Your task to perform on an android device: Open ESPN.com Image 0: 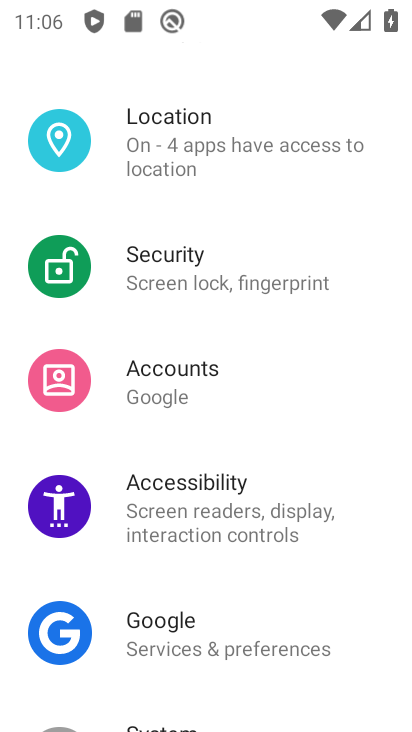
Step 0: press home button
Your task to perform on an android device: Open ESPN.com Image 1: 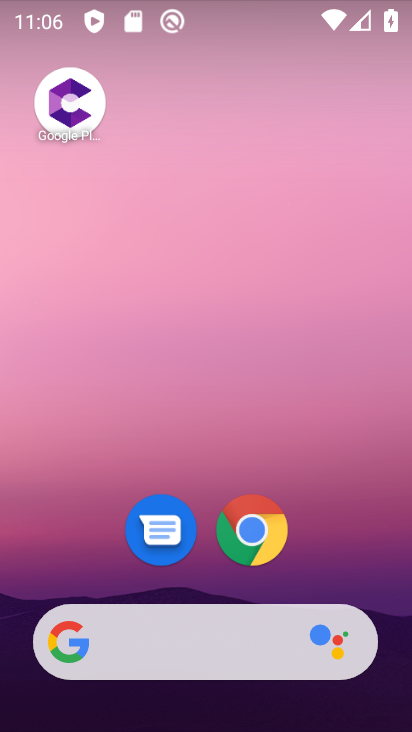
Step 1: click (266, 525)
Your task to perform on an android device: Open ESPN.com Image 2: 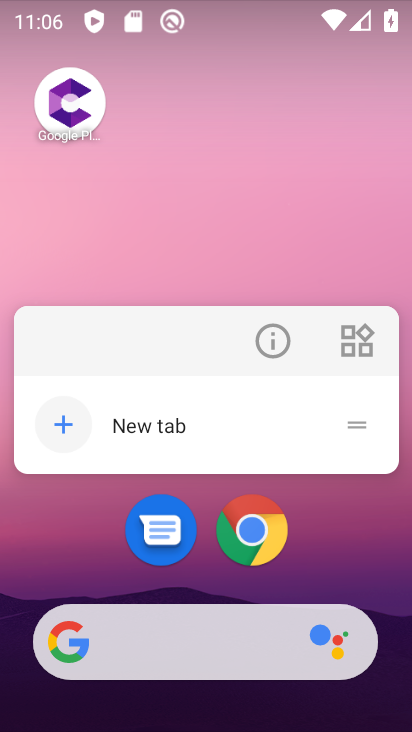
Step 2: click (264, 527)
Your task to perform on an android device: Open ESPN.com Image 3: 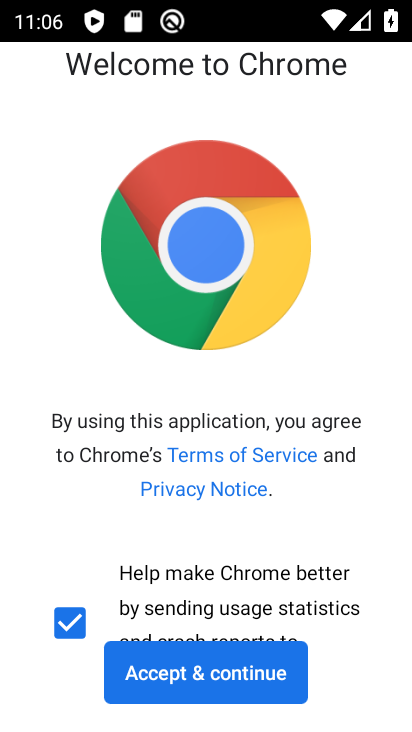
Step 3: click (226, 651)
Your task to perform on an android device: Open ESPN.com Image 4: 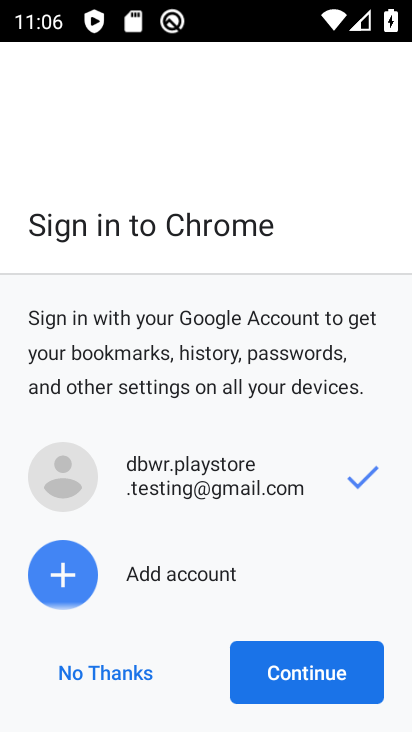
Step 4: click (254, 674)
Your task to perform on an android device: Open ESPN.com Image 5: 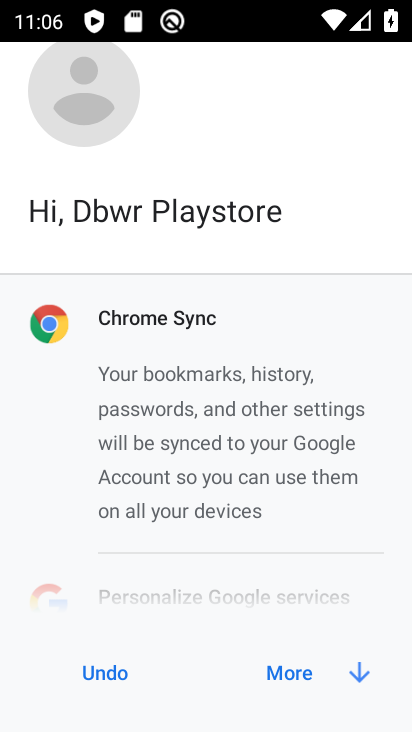
Step 5: click (279, 674)
Your task to perform on an android device: Open ESPN.com Image 6: 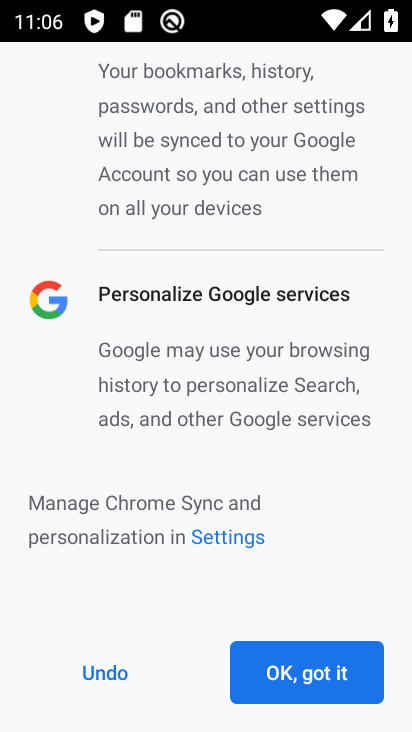
Step 6: click (279, 674)
Your task to perform on an android device: Open ESPN.com Image 7: 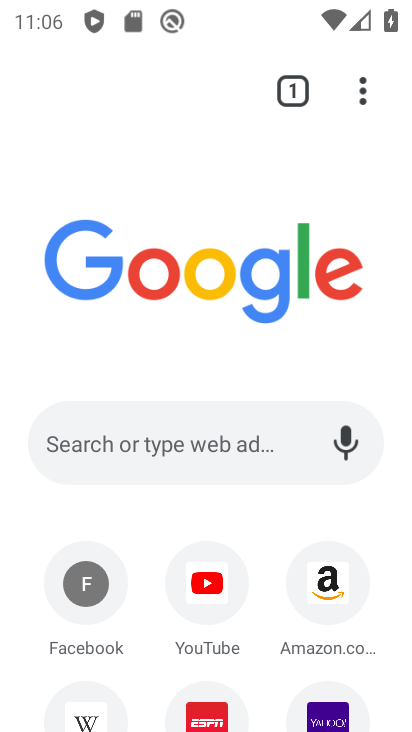
Step 7: click (216, 719)
Your task to perform on an android device: Open ESPN.com Image 8: 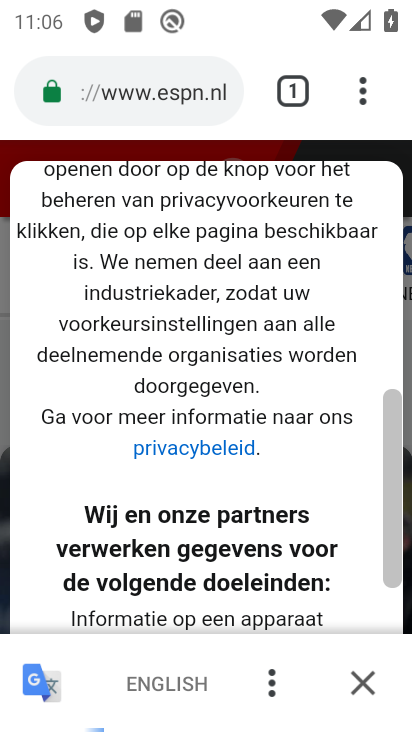
Step 8: task complete